Your task to perform on an android device: Is it going to rain tomorrow? Image 0: 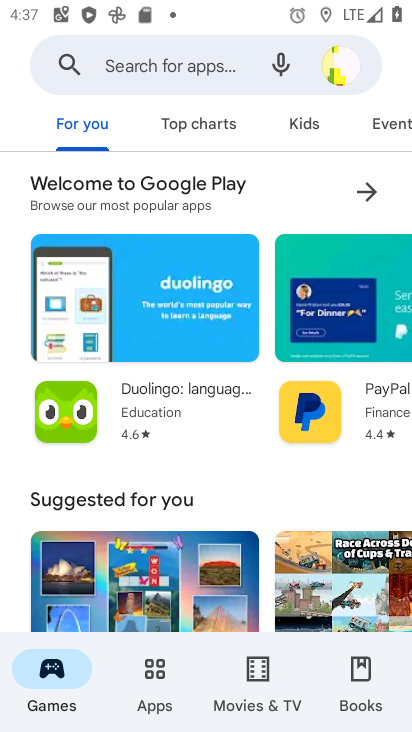
Step 0: press home button
Your task to perform on an android device: Is it going to rain tomorrow? Image 1: 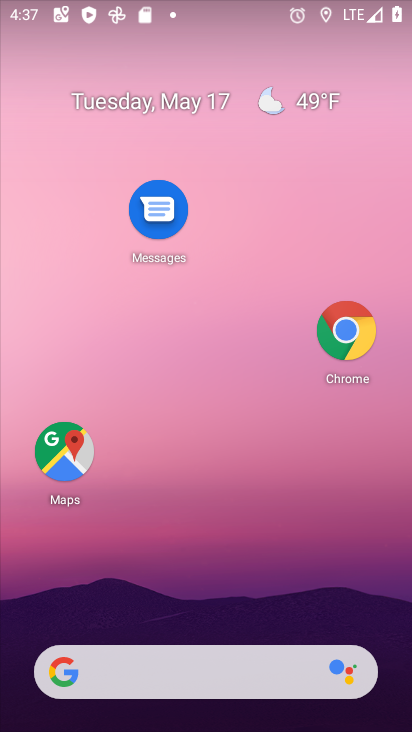
Step 1: click (216, 675)
Your task to perform on an android device: Is it going to rain tomorrow? Image 2: 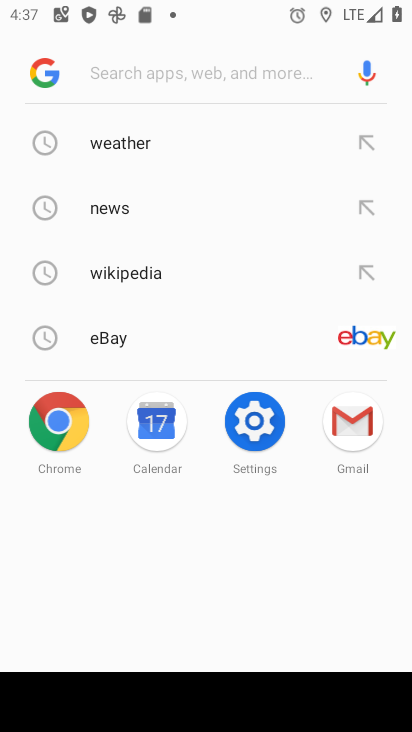
Step 2: click (220, 127)
Your task to perform on an android device: Is it going to rain tomorrow? Image 3: 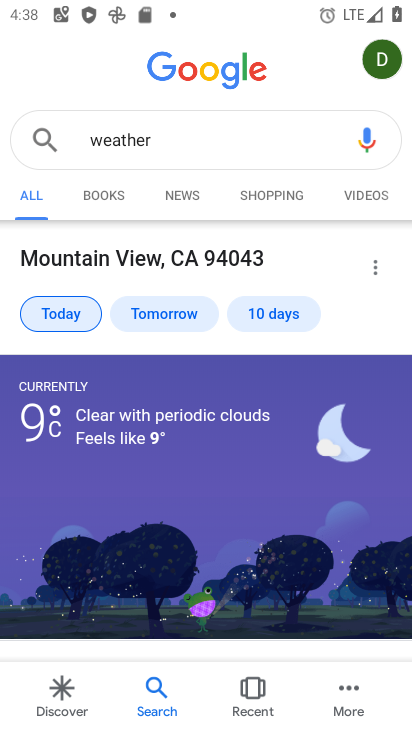
Step 3: click (159, 306)
Your task to perform on an android device: Is it going to rain tomorrow? Image 4: 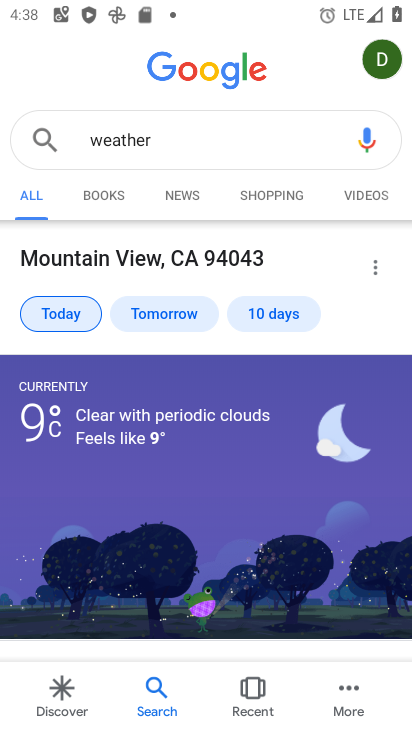
Step 4: click (159, 306)
Your task to perform on an android device: Is it going to rain tomorrow? Image 5: 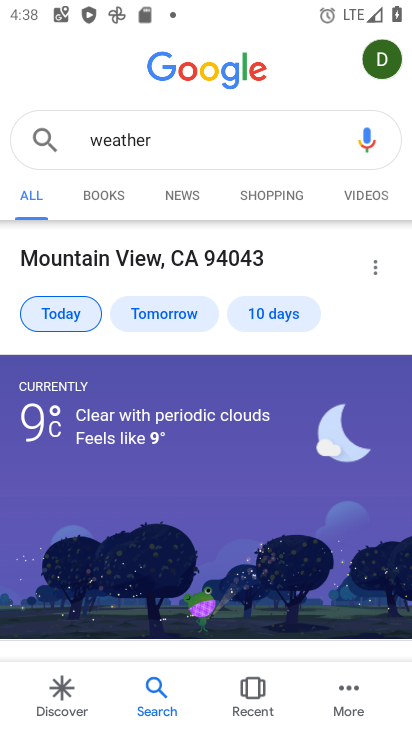
Step 5: click (159, 306)
Your task to perform on an android device: Is it going to rain tomorrow? Image 6: 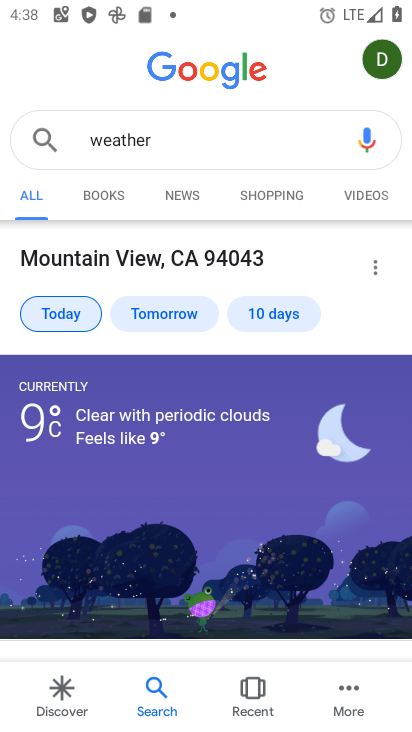
Step 6: task complete